Your task to perform on an android device: Open Google Maps Image 0: 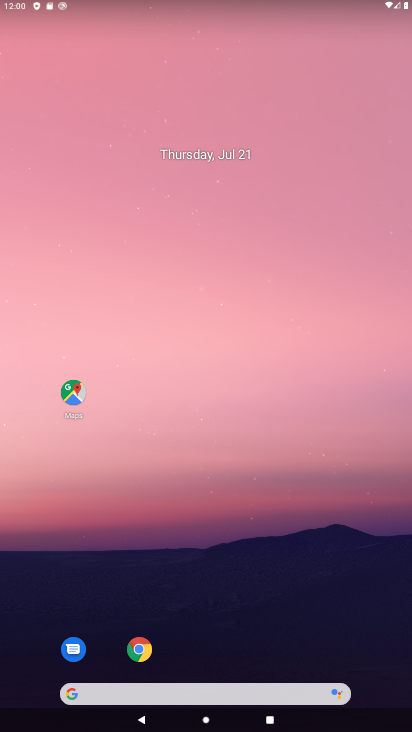
Step 0: task complete